Your task to perform on an android device: Open Google Chrome and click the shortcut for Amazon.com Image 0: 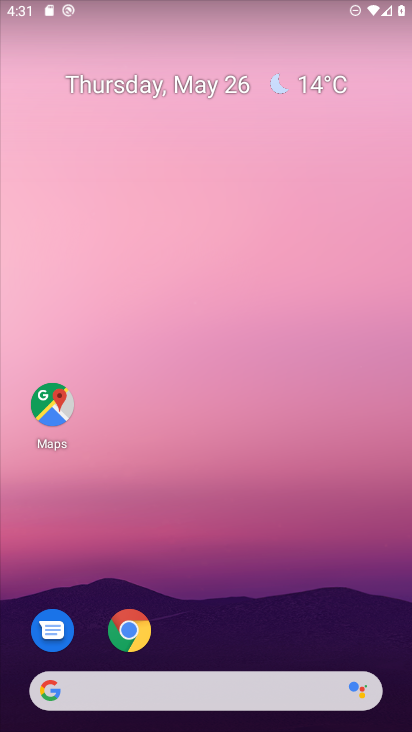
Step 0: click (129, 626)
Your task to perform on an android device: Open Google Chrome and click the shortcut for Amazon.com Image 1: 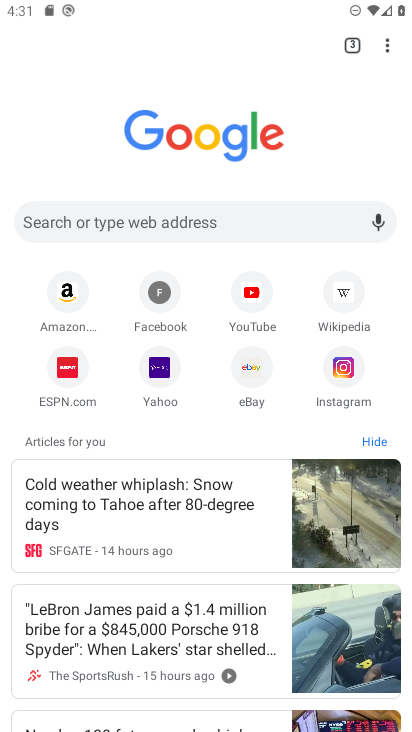
Step 1: click (297, 219)
Your task to perform on an android device: Open Google Chrome and click the shortcut for Amazon.com Image 2: 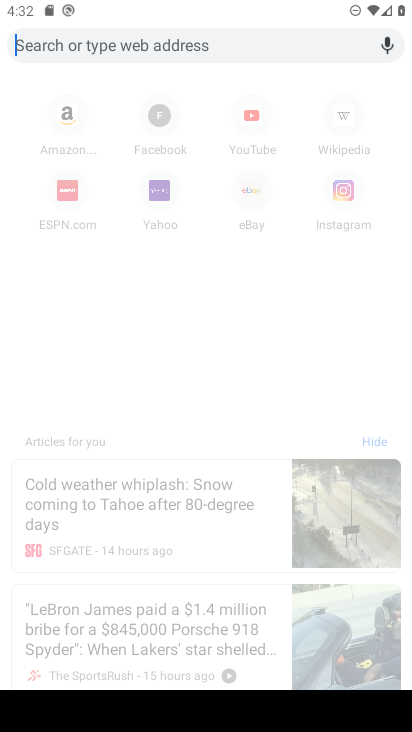
Step 2: click (69, 113)
Your task to perform on an android device: Open Google Chrome and click the shortcut for Amazon.com Image 3: 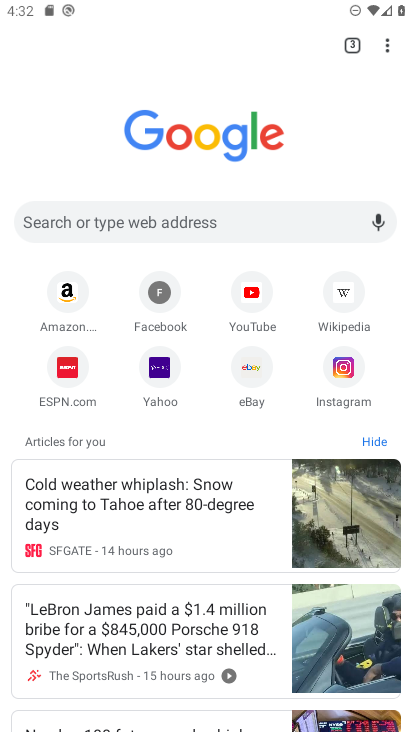
Step 3: click (69, 295)
Your task to perform on an android device: Open Google Chrome and click the shortcut for Amazon.com Image 4: 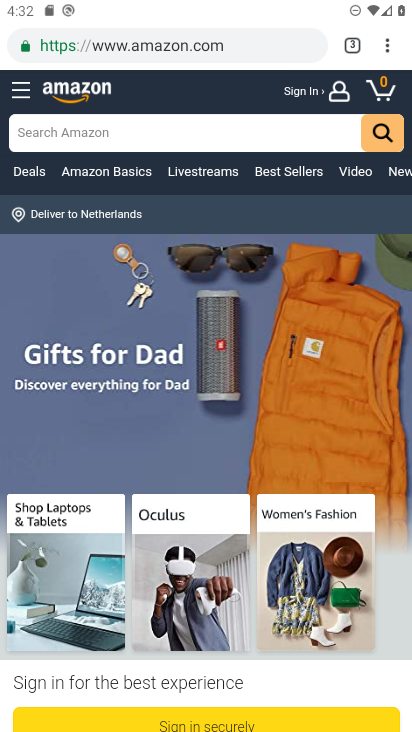
Step 4: click (389, 44)
Your task to perform on an android device: Open Google Chrome and click the shortcut for Amazon.com Image 5: 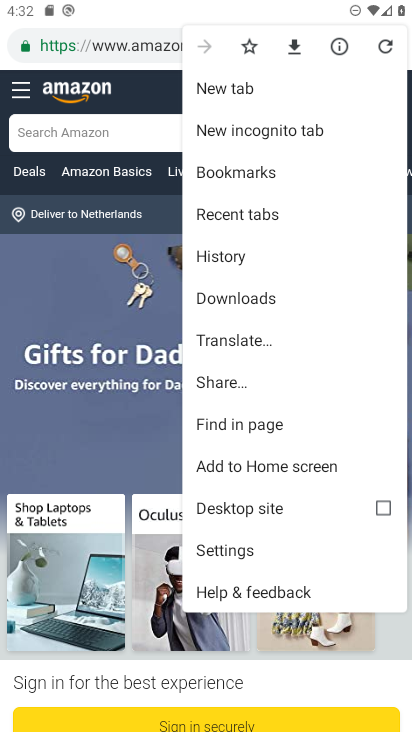
Step 5: click (273, 465)
Your task to perform on an android device: Open Google Chrome and click the shortcut for Amazon.com Image 6: 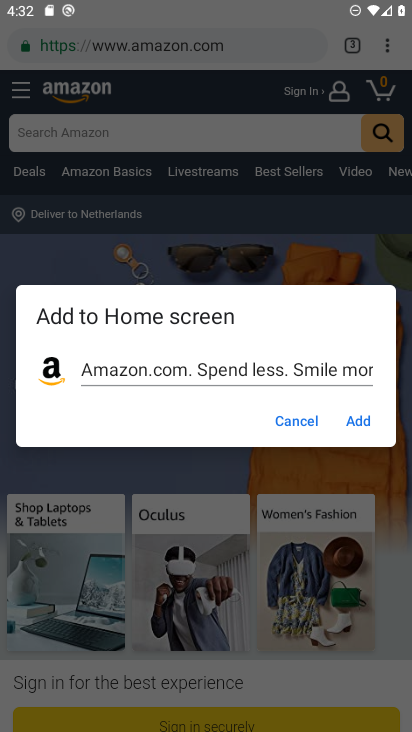
Step 6: click (372, 425)
Your task to perform on an android device: Open Google Chrome and click the shortcut for Amazon.com Image 7: 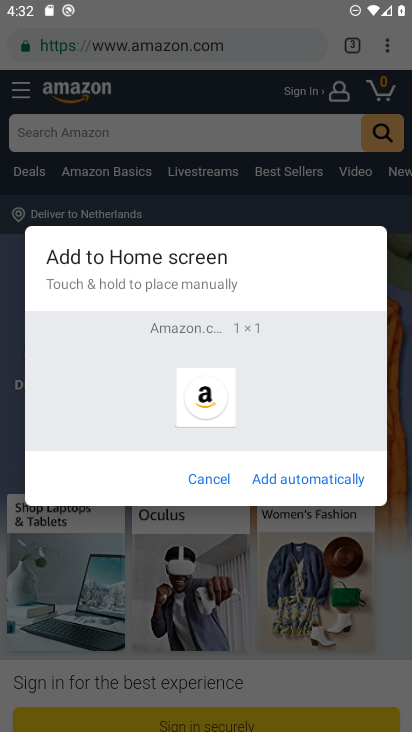
Step 7: click (327, 476)
Your task to perform on an android device: Open Google Chrome and click the shortcut for Amazon.com Image 8: 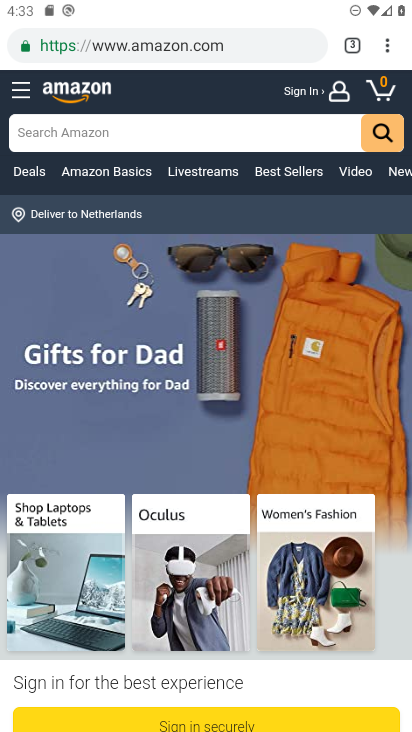
Step 8: task complete